Your task to perform on an android device: Do I have any events this weekend? Image 0: 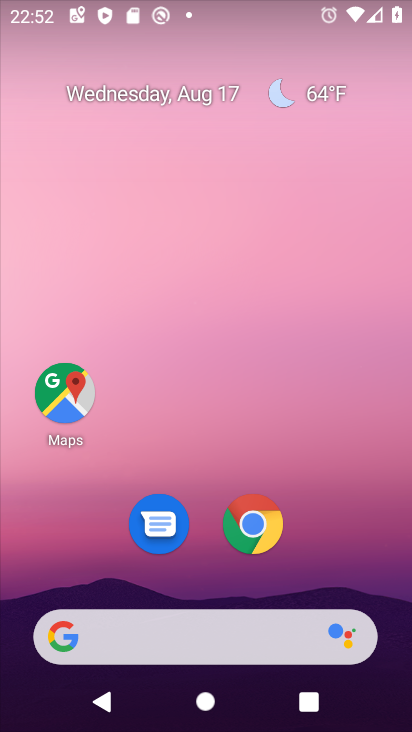
Step 0: drag from (302, 532) to (325, 0)
Your task to perform on an android device: Do I have any events this weekend? Image 1: 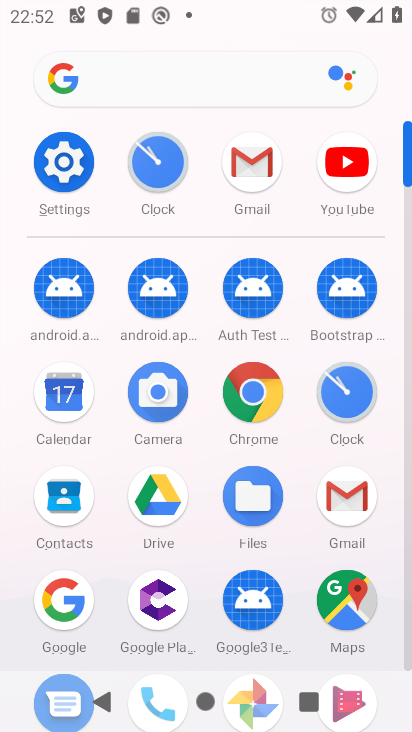
Step 1: click (73, 394)
Your task to perform on an android device: Do I have any events this weekend? Image 2: 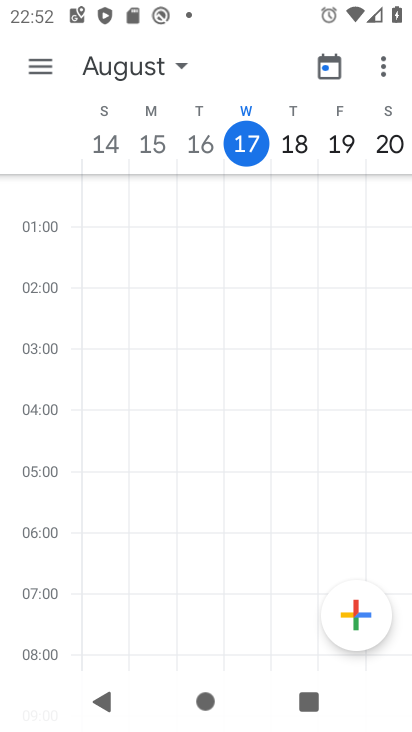
Step 2: task complete